Your task to perform on an android device: Open Yahoo.com Image 0: 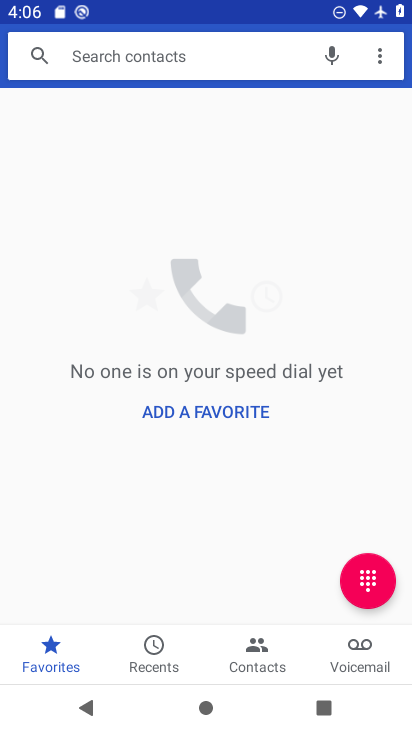
Step 0: press home button
Your task to perform on an android device: Open Yahoo.com Image 1: 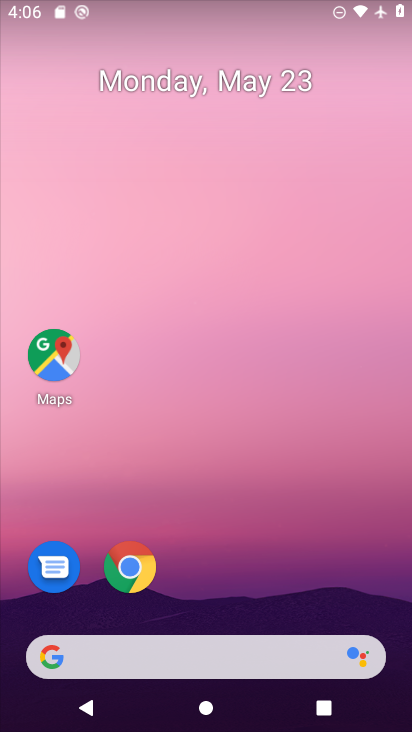
Step 1: click (129, 572)
Your task to perform on an android device: Open Yahoo.com Image 2: 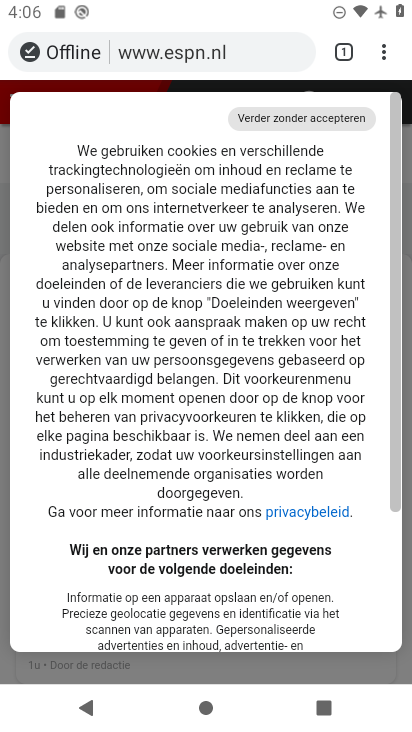
Step 2: click (194, 45)
Your task to perform on an android device: Open Yahoo.com Image 3: 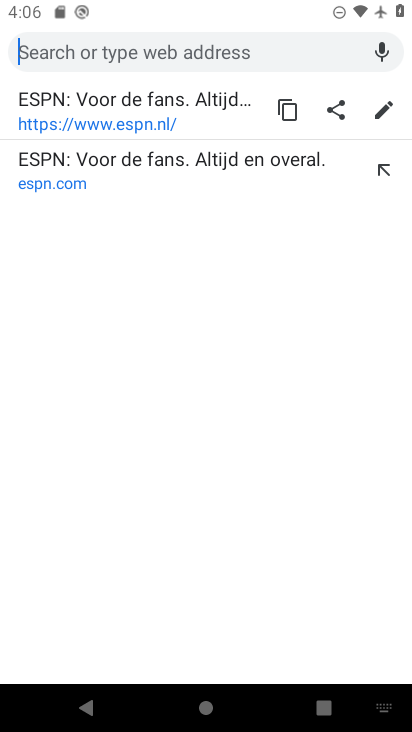
Step 3: type "yahoo.com"
Your task to perform on an android device: Open Yahoo.com Image 4: 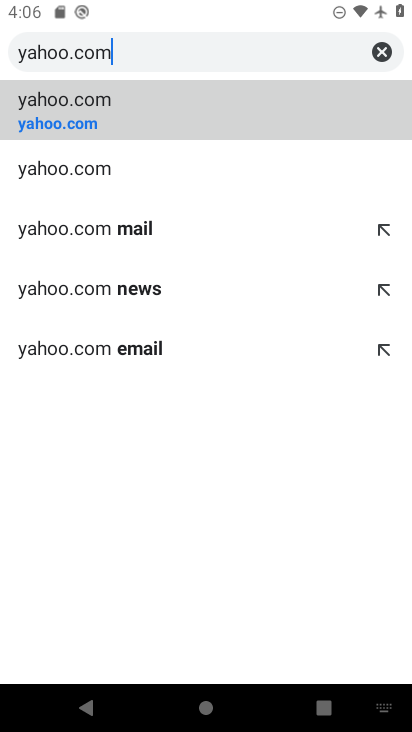
Step 4: click (134, 99)
Your task to perform on an android device: Open Yahoo.com Image 5: 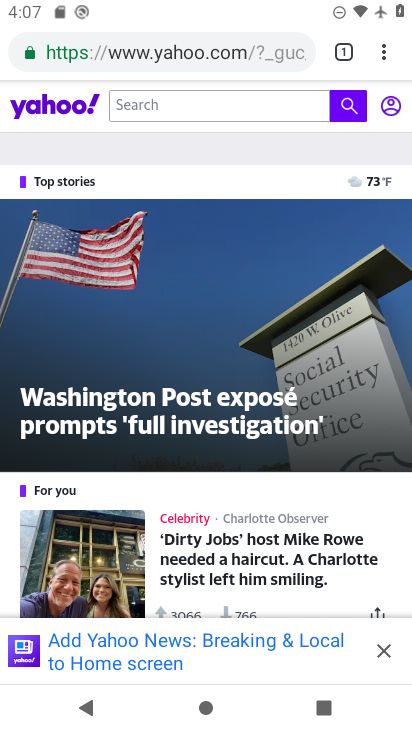
Step 5: task complete